Your task to perform on an android device: show emergency info Image 0: 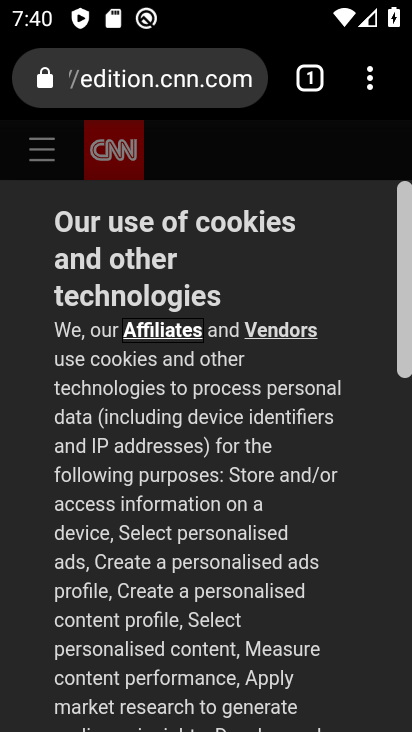
Step 0: press home button
Your task to perform on an android device: show emergency info Image 1: 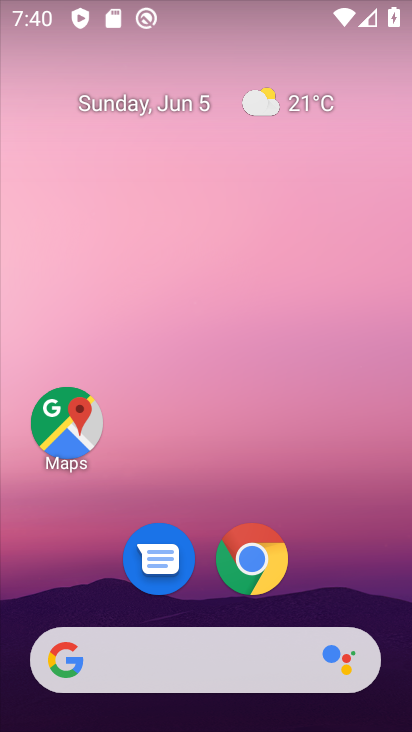
Step 1: drag from (344, 561) to (243, 29)
Your task to perform on an android device: show emergency info Image 2: 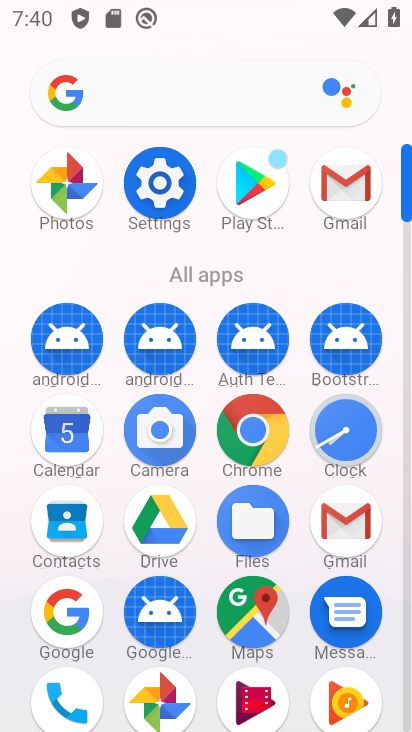
Step 2: click (147, 144)
Your task to perform on an android device: show emergency info Image 3: 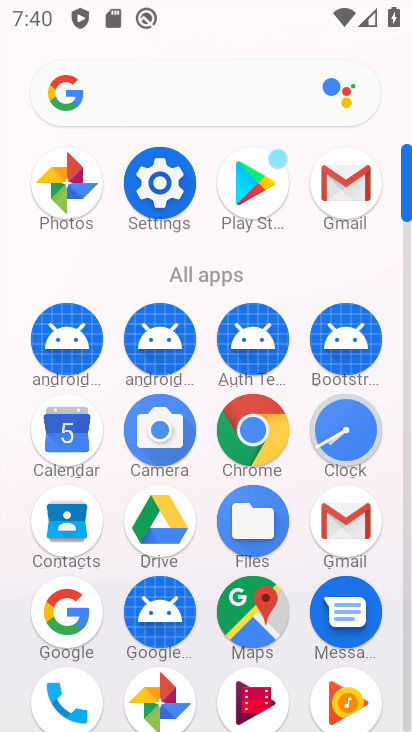
Step 3: click (146, 174)
Your task to perform on an android device: show emergency info Image 4: 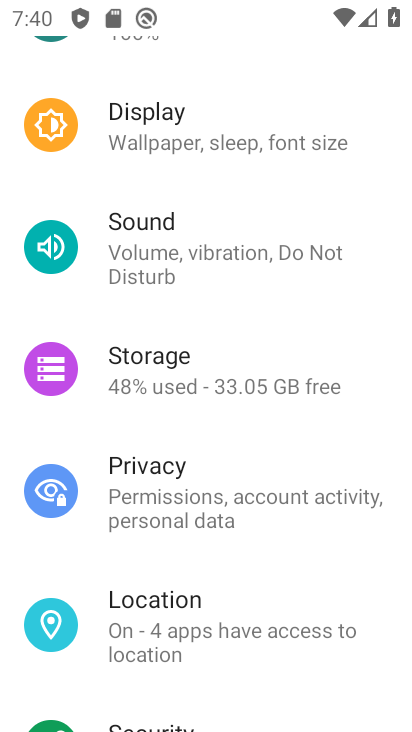
Step 4: drag from (263, 626) to (230, 196)
Your task to perform on an android device: show emergency info Image 5: 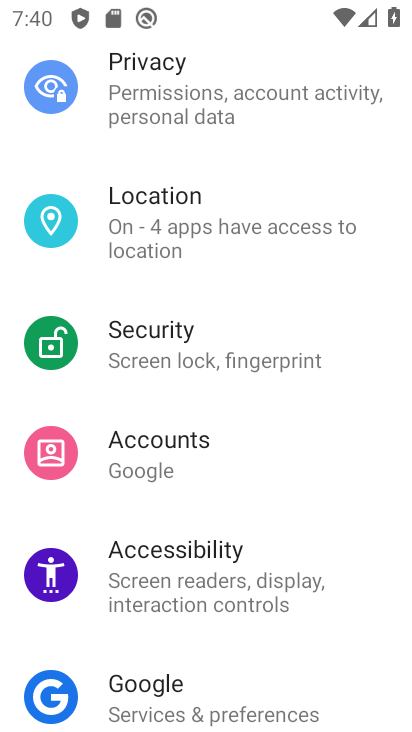
Step 5: drag from (255, 632) to (157, 224)
Your task to perform on an android device: show emergency info Image 6: 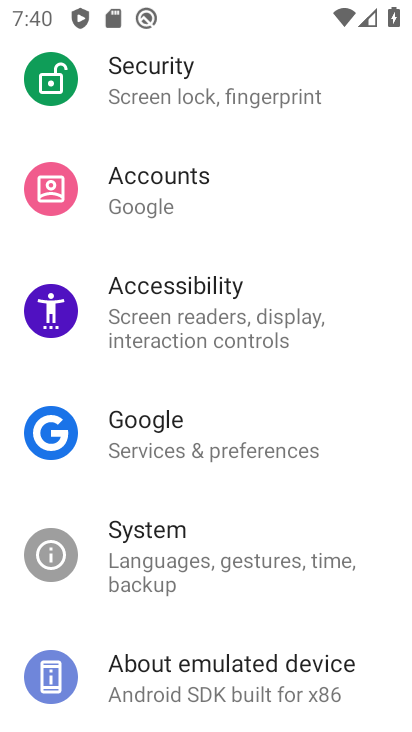
Step 6: click (197, 694)
Your task to perform on an android device: show emergency info Image 7: 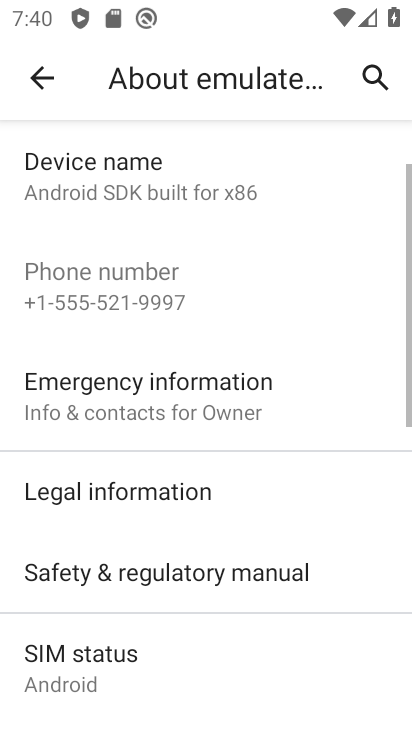
Step 7: click (152, 363)
Your task to perform on an android device: show emergency info Image 8: 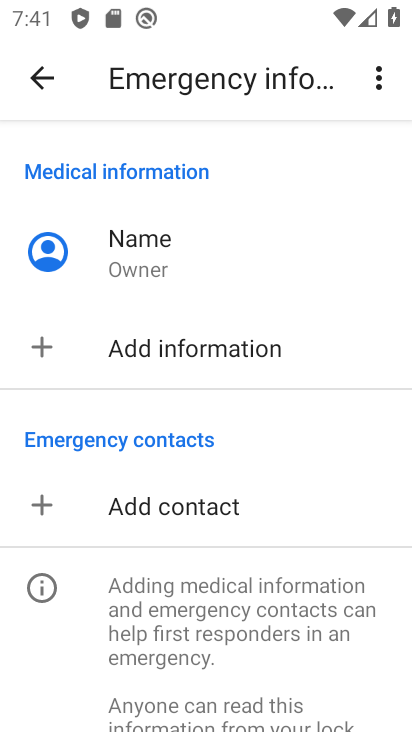
Step 8: task complete